Your task to perform on an android device: check data usage Image 0: 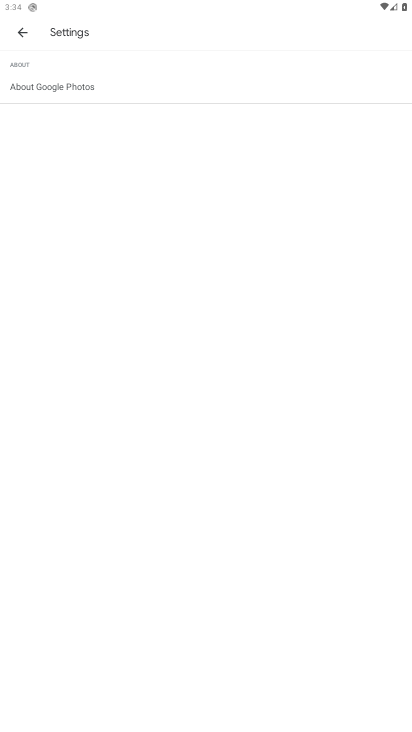
Step 0: press home button
Your task to perform on an android device: check data usage Image 1: 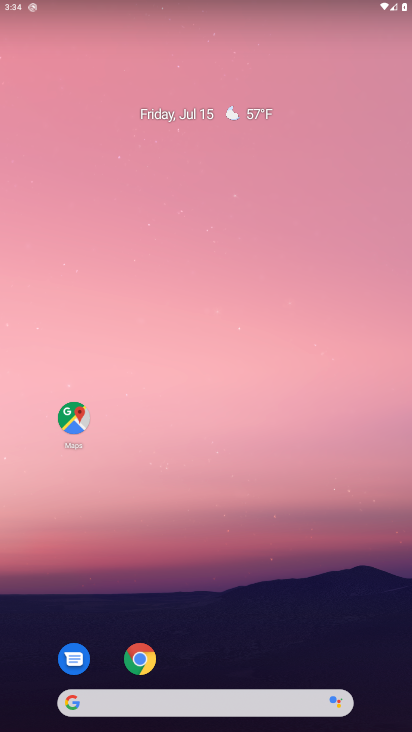
Step 1: drag from (38, 670) to (368, 33)
Your task to perform on an android device: check data usage Image 2: 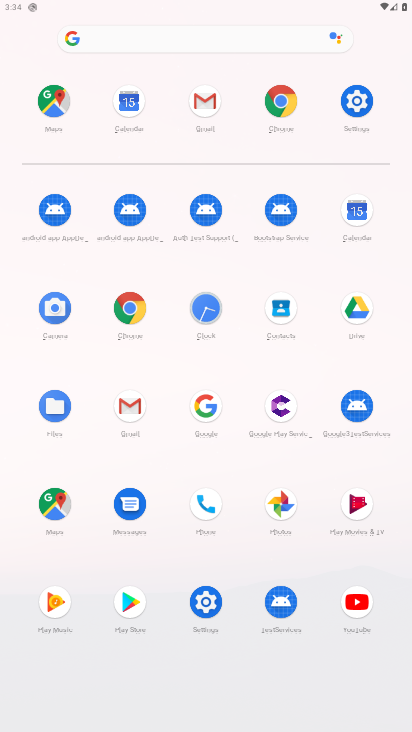
Step 2: click (191, 614)
Your task to perform on an android device: check data usage Image 3: 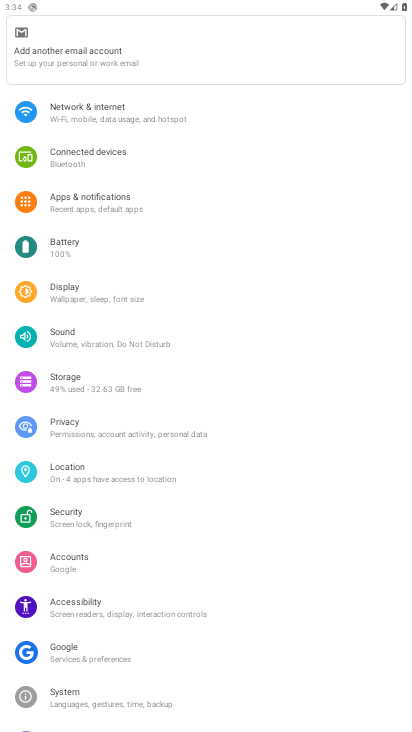
Step 3: click (101, 113)
Your task to perform on an android device: check data usage Image 4: 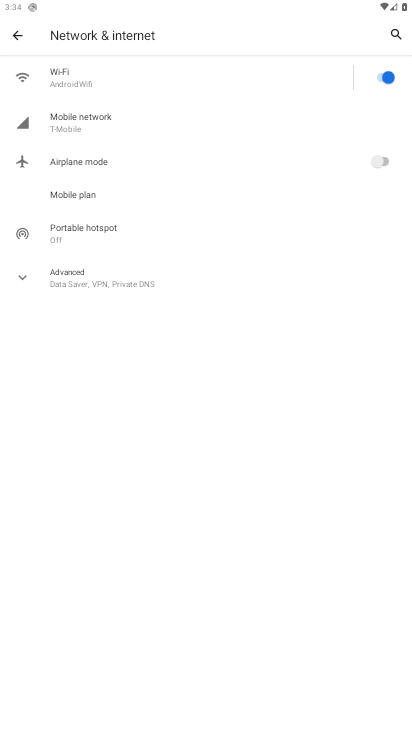
Step 4: click (77, 268)
Your task to perform on an android device: check data usage Image 5: 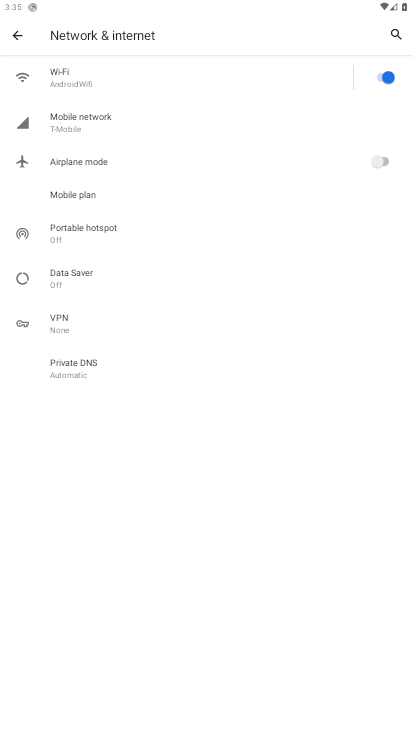
Step 5: click (104, 126)
Your task to perform on an android device: check data usage Image 6: 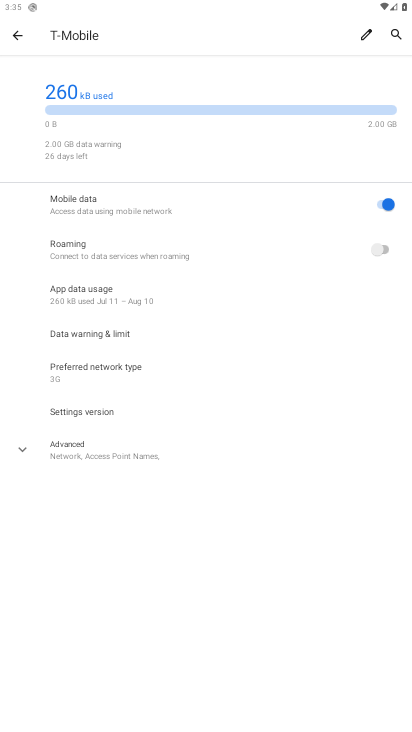
Step 6: task complete